Your task to perform on an android device: Show me the alarms in the clock app Image 0: 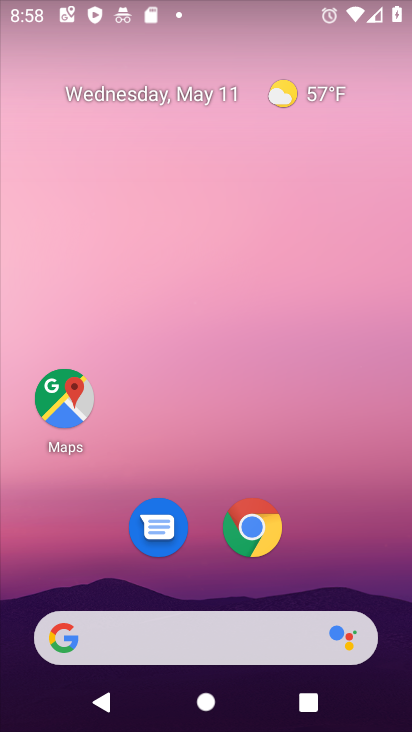
Step 0: drag from (371, 415) to (349, 4)
Your task to perform on an android device: Show me the alarms in the clock app Image 1: 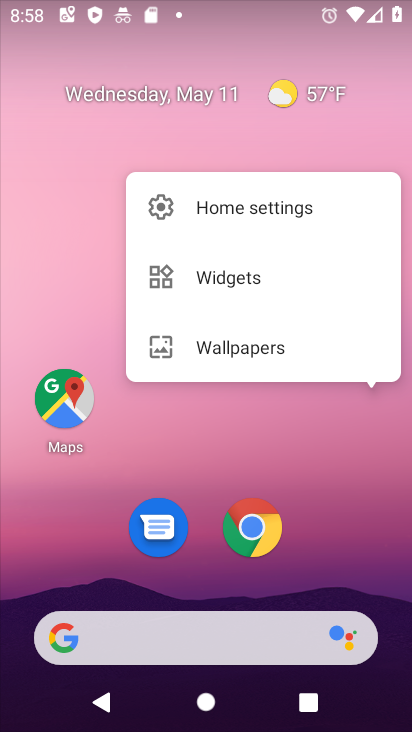
Step 1: drag from (321, 472) to (296, 14)
Your task to perform on an android device: Show me the alarms in the clock app Image 2: 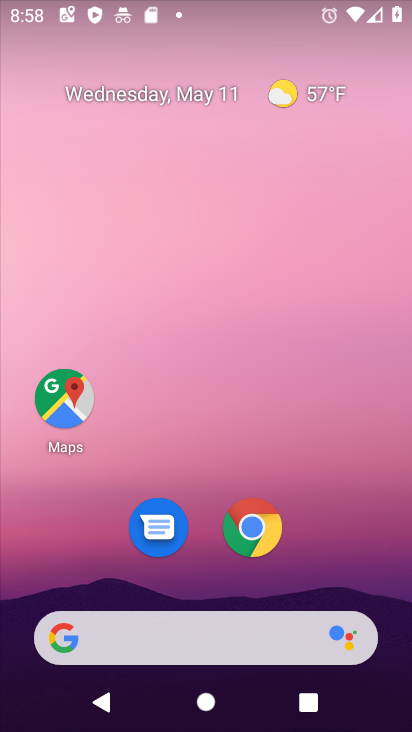
Step 2: drag from (315, 379) to (334, 27)
Your task to perform on an android device: Show me the alarms in the clock app Image 3: 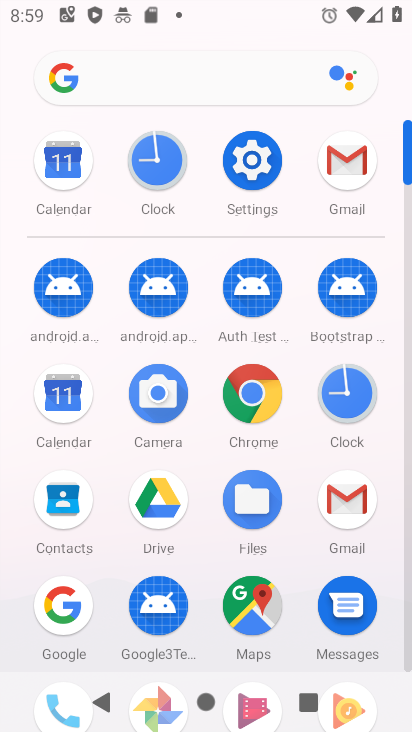
Step 3: click (153, 166)
Your task to perform on an android device: Show me the alarms in the clock app Image 4: 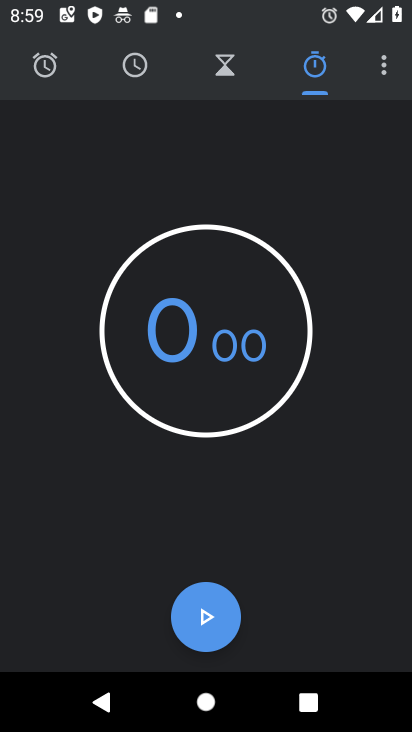
Step 4: click (46, 77)
Your task to perform on an android device: Show me the alarms in the clock app Image 5: 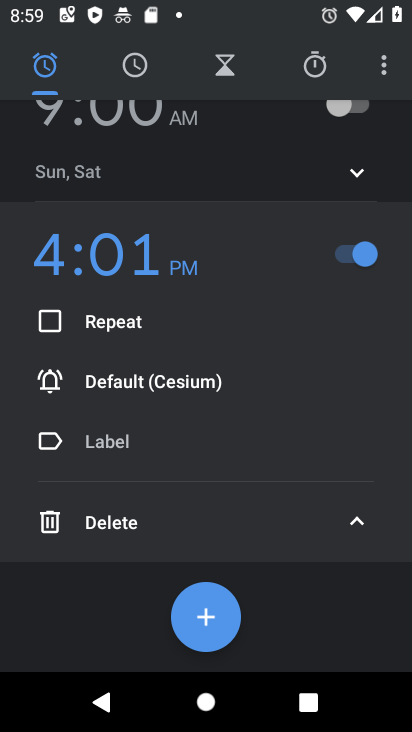
Step 5: task complete